Your task to perform on an android device: open app "Roku - Official Remote Control" Image 0: 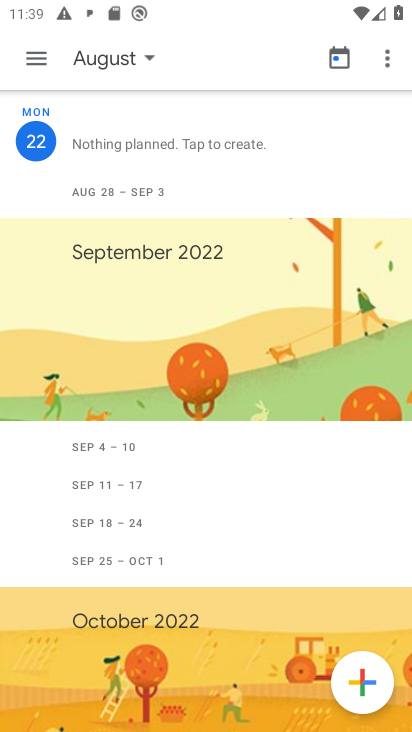
Step 0: press home button
Your task to perform on an android device: open app "Roku - Official Remote Control" Image 1: 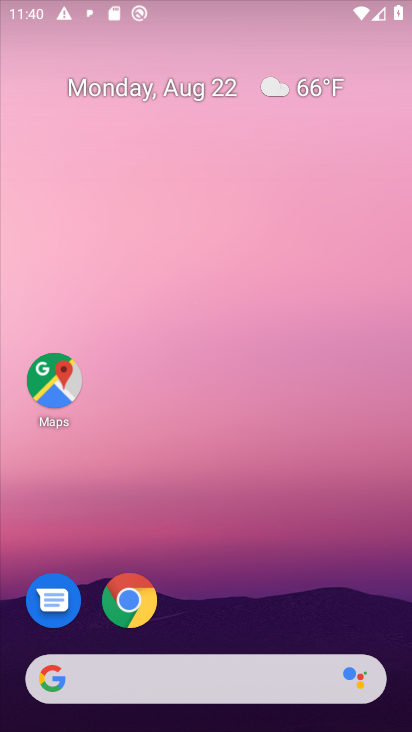
Step 1: drag from (266, 565) to (250, 186)
Your task to perform on an android device: open app "Roku - Official Remote Control" Image 2: 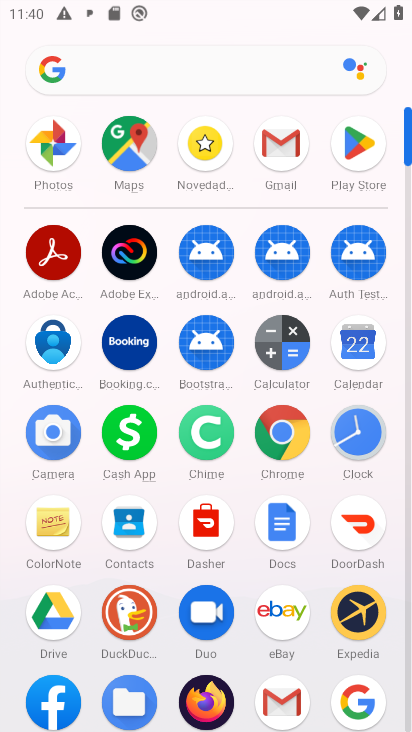
Step 2: click (348, 146)
Your task to perform on an android device: open app "Roku - Official Remote Control" Image 3: 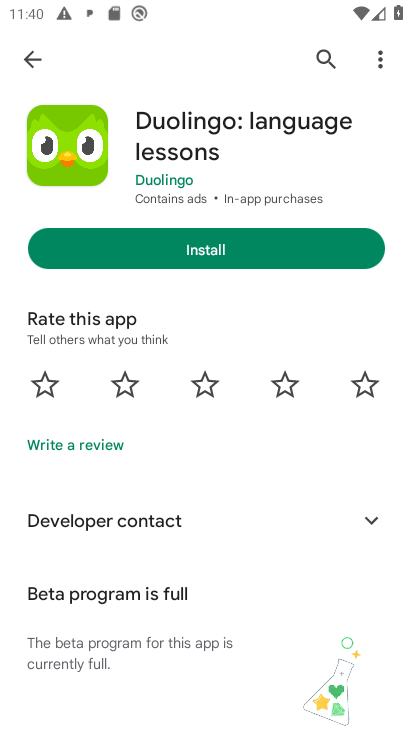
Step 3: click (333, 60)
Your task to perform on an android device: open app "Roku - Official Remote Control" Image 4: 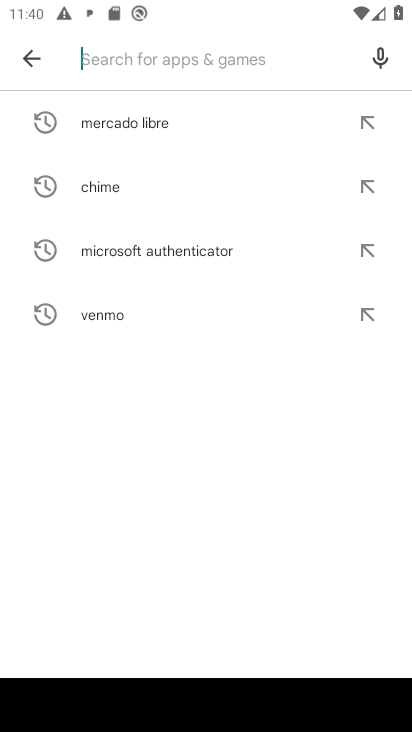
Step 4: type "Roku - Official Remote Control"
Your task to perform on an android device: open app "Roku - Official Remote Control" Image 5: 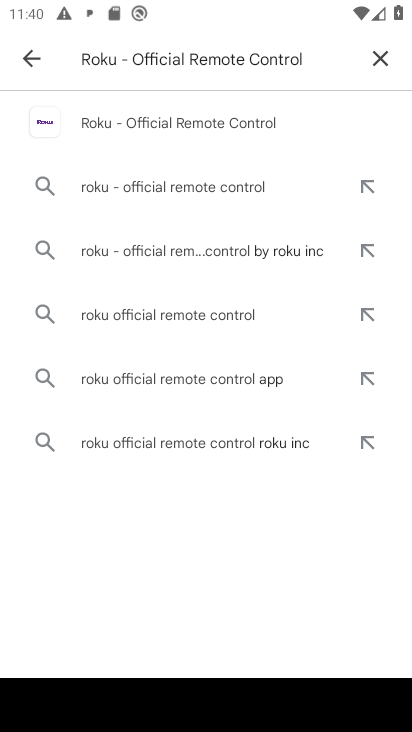
Step 5: click (159, 128)
Your task to perform on an android device: open app "Roku - Official Remote Control" Image 6: 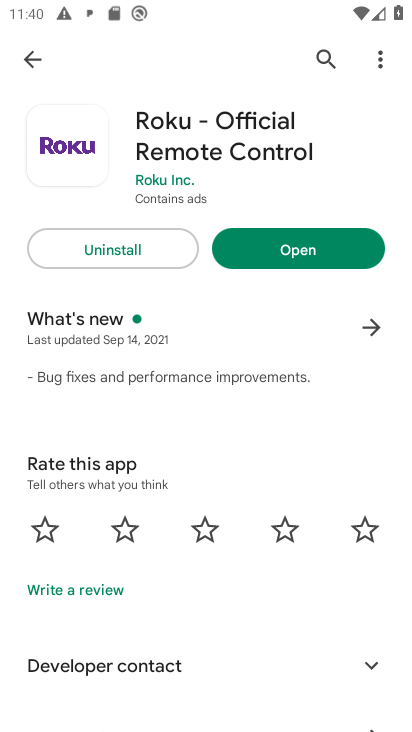
Step 6: click (311, 260)
Your task to perform on an android device: open app "Roku - Official Remote Control" Image 7: 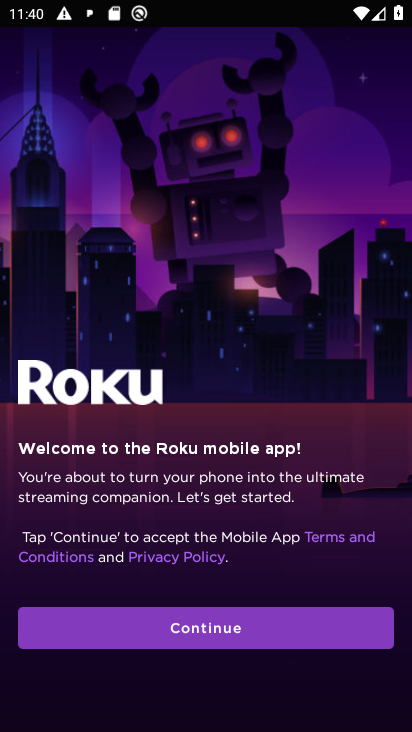
Step 7: task complete